Your task to perform on an android device: turn on sleep mode Image 0: 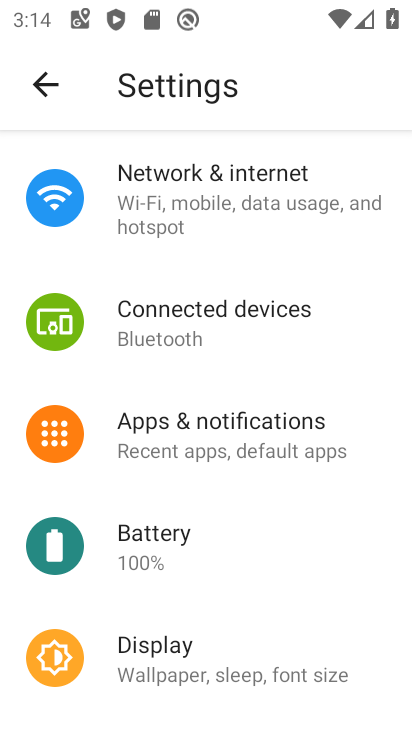
Step 0: click (232, 649)
Your task to perform on an android device: turn on sleep mode Image 1: 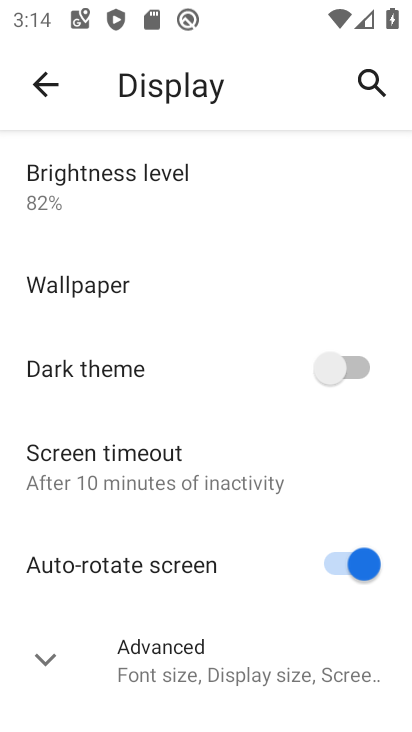
Step 1: click (171, 474)
Your task to perform on an android device: turn on sleep mode Image 2: 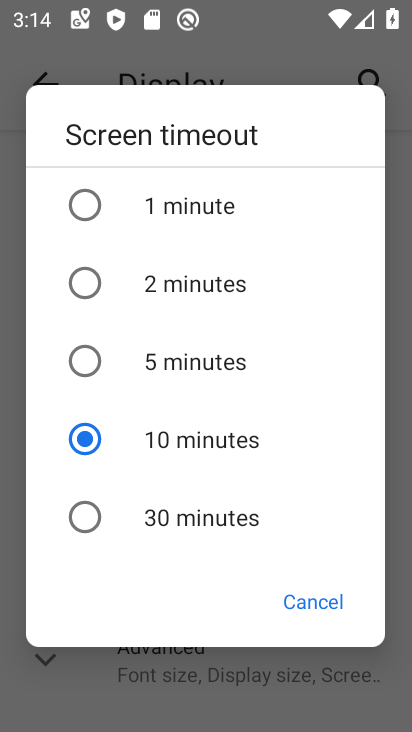
Step 2: click (168, 292)
Your task to perform on an android device: turn on sleep mode Image 3: 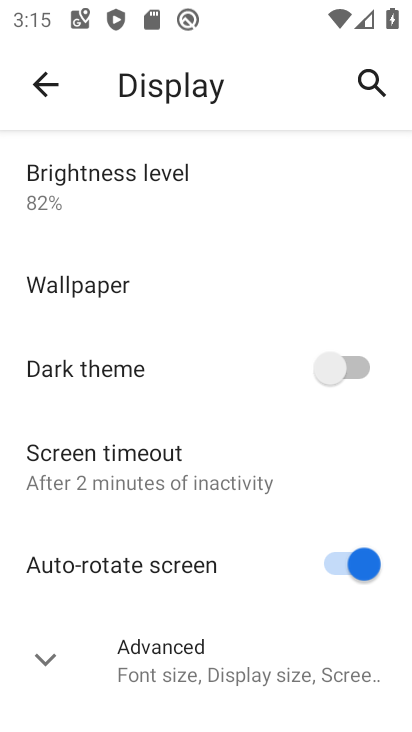
Step 3: task complete